Your task to perform on an android device: add a contact in the contacts app Image 0: 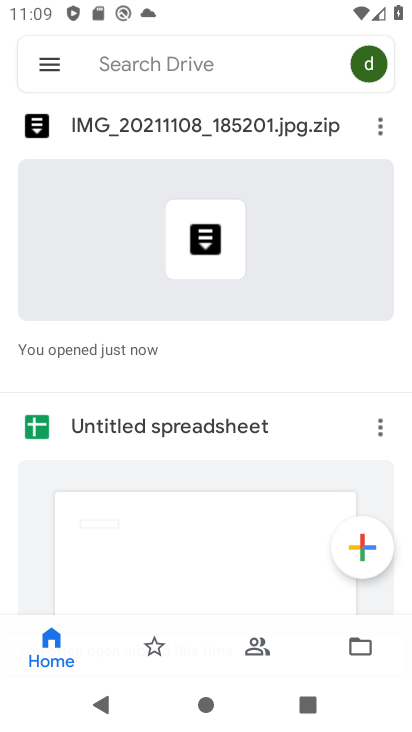
Step 0: press home button
Your task to perform on an android device: add a contact in the contacts app Image 1: 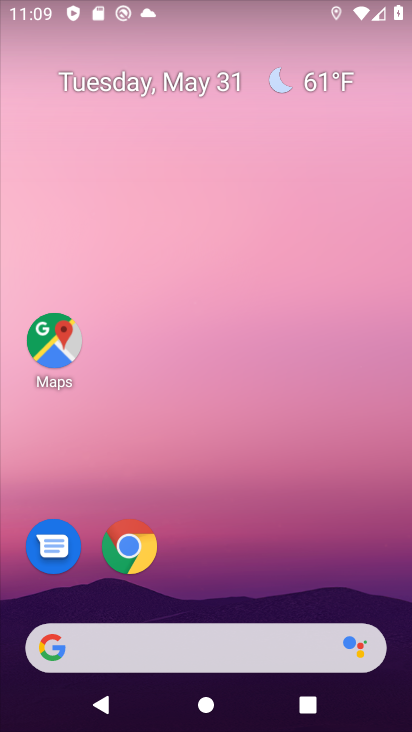
Step 1: drag from (212, 622) to (240, 11)
Your task to perform on an android device: add a contact in the contacts app Image 2: 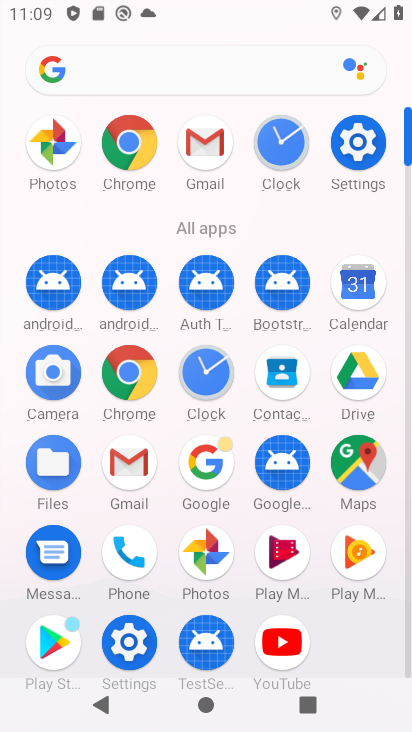
Step 2: click (131, 548)
Your task to perform on an android device: add a contact in the contacts app Image 3: 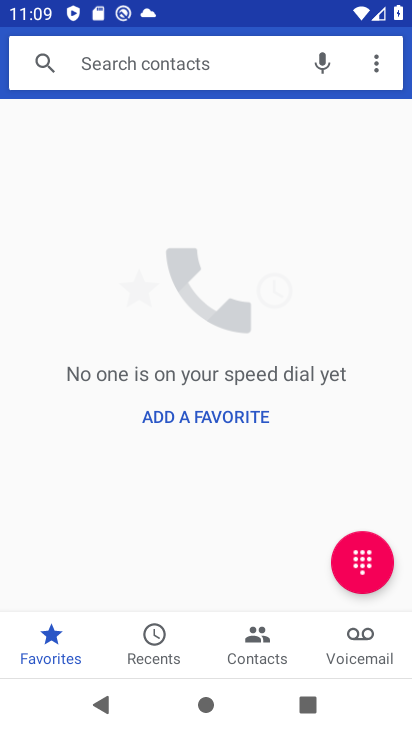
Step 3: click (261, 657)
Your task to perform on an android device: add a contact in the contacts app Image 4: 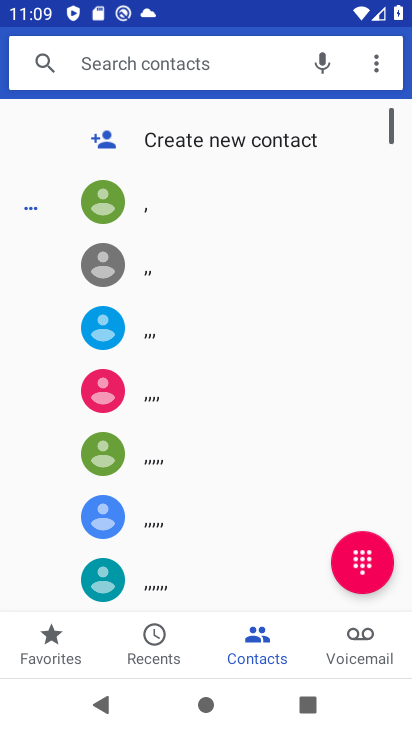
Step 4: click (224, 136)
Your task to perform on an android device: add a contact in the contacts app Image 5: 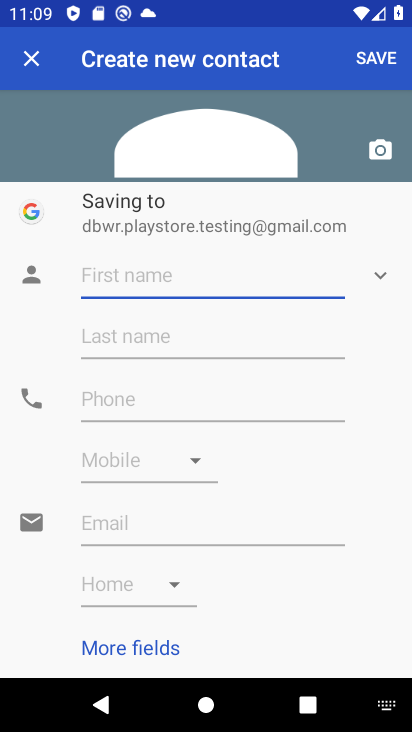
Step 5: type "hjhg"
Your task to perform on an android device: add a contact in the contacts app Image 6: 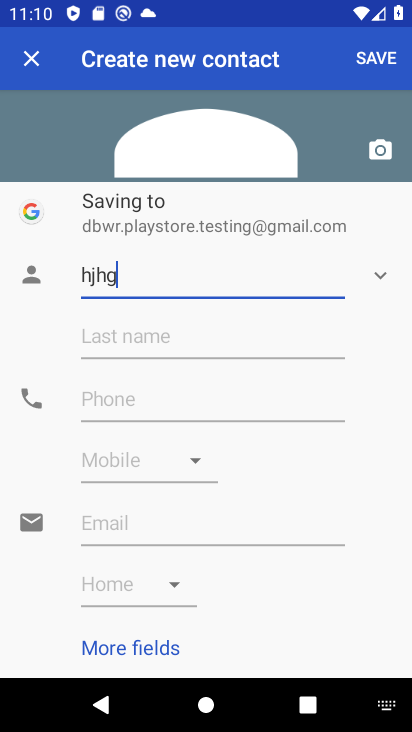
Step 6: type ""
Your task to perform on an android device: add a contact in the contacts app Image 7: 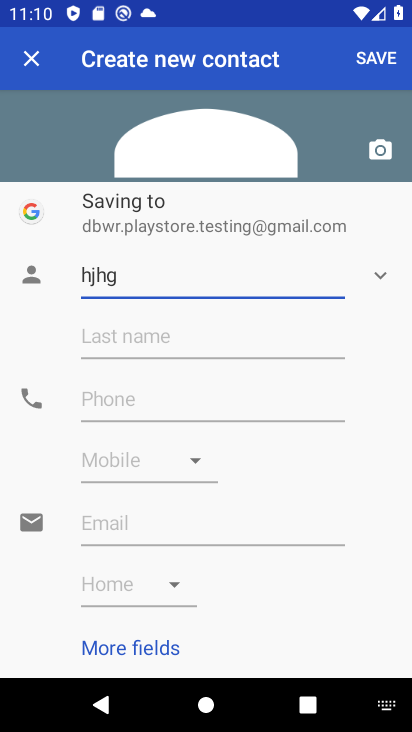
Step 7: click (146, 383)
Your task to perform on an android device: add a contact in the contacts app Image 8: 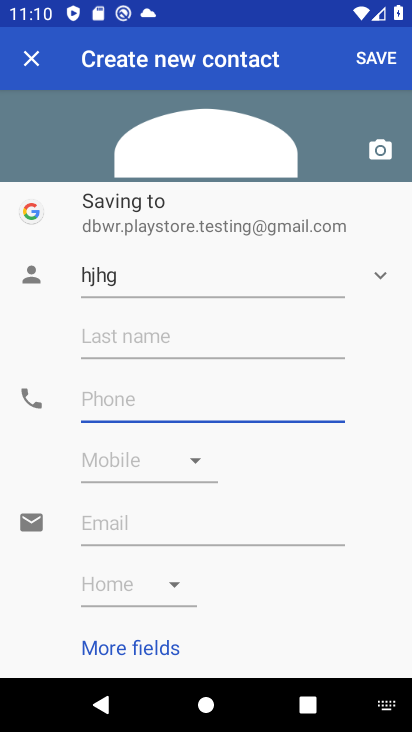
Step 8: type "9876789"
Your task to perform on an android device: add a contact in the contacts app Image 9: 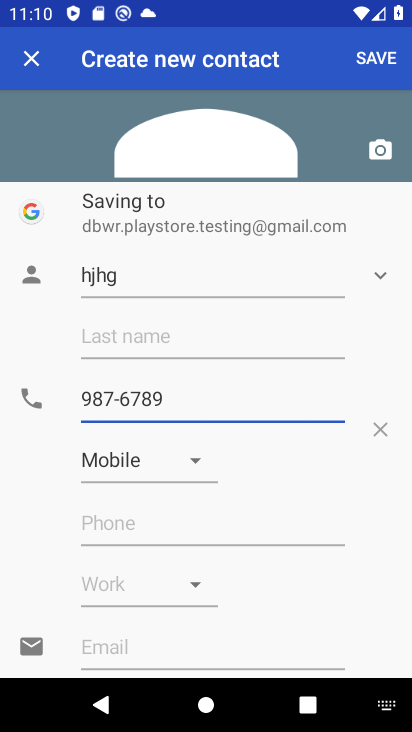
Step 9: click (357, 56)
Your task to perform on an android device: add a contact in the contacts app Image 10: 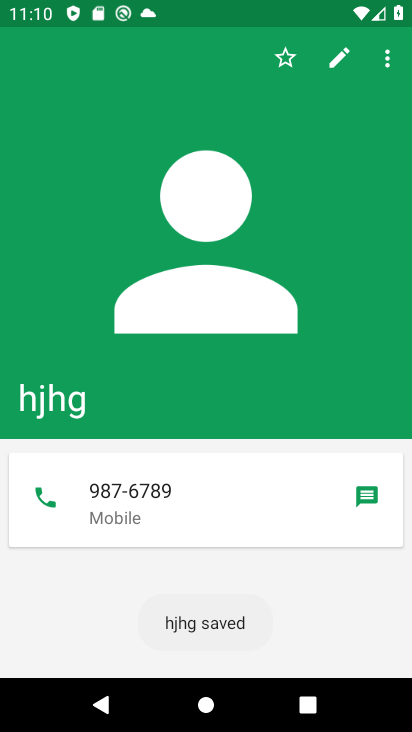
Step 10: task complete